Your task to perform on an android device: toggle translation in the chrome app Image 0: 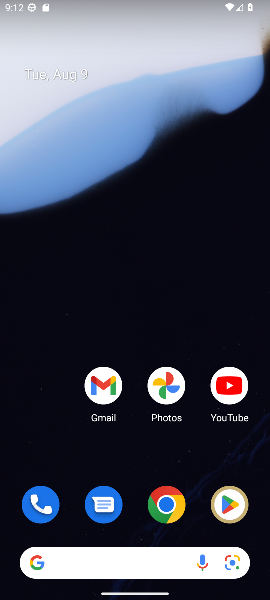
Step 0: click (173, 507)
Your task to perform on an android device: toggle translation in the chrome app Image 1: 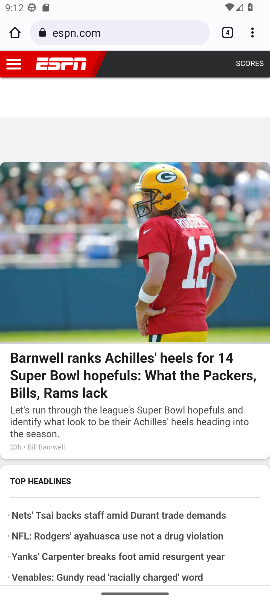
Step 1: click (246, 31)
Your task to perform on an android device: toggle translation in the chrome app Image 2: 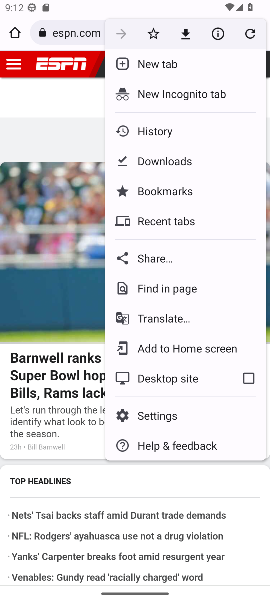
Step 2: click (167, 415)
Your task to perform on an android device: toggle translation in the chrome app Image 3: 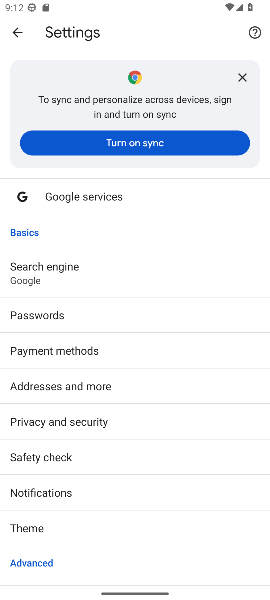
Step 3: drag from (149, 499) to (107, 168)
Your task to perform on an android device: toggle translation in the chrome app Image 4: 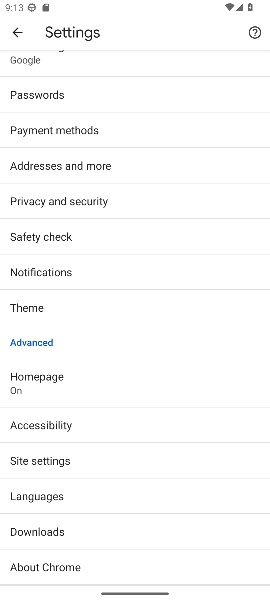
Step 4: click (45, 491)
Your task to perform on an android device: toggle translation in the chrome app Image 5: 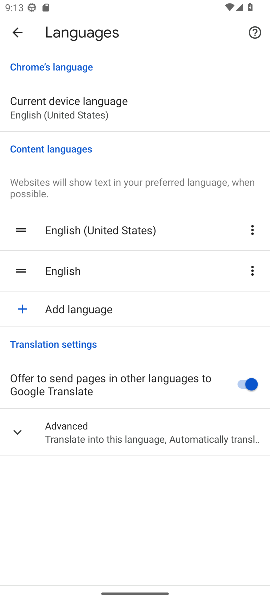
Step 5: click (147, 424)
Your task to perform on an android device: toggle translation in the chrome app Image 6: 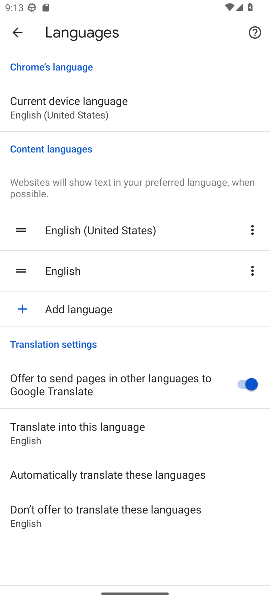
Step 6: click (250, 383)
Your task to perform on an android device: toggle translation in the chrome app Image 7: 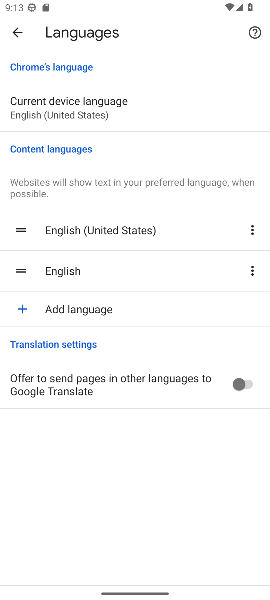
Step 7: task complete